Your task to perform on an android device: Go to Google Image 0: 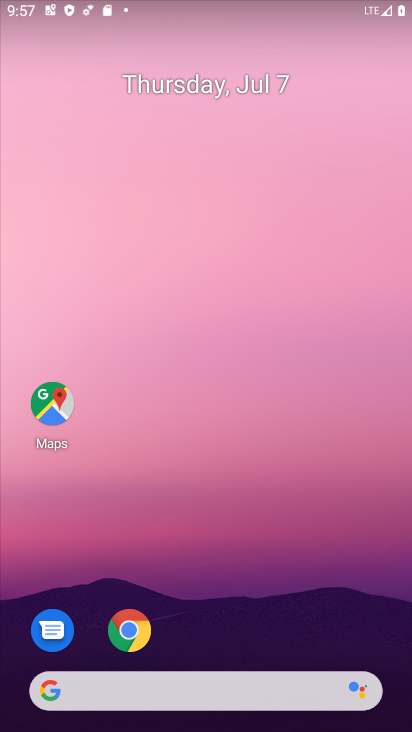
Step 0: drag from (201, 641) to (266, 174)
Your task to perform on an android device: Go to Google Image 1: 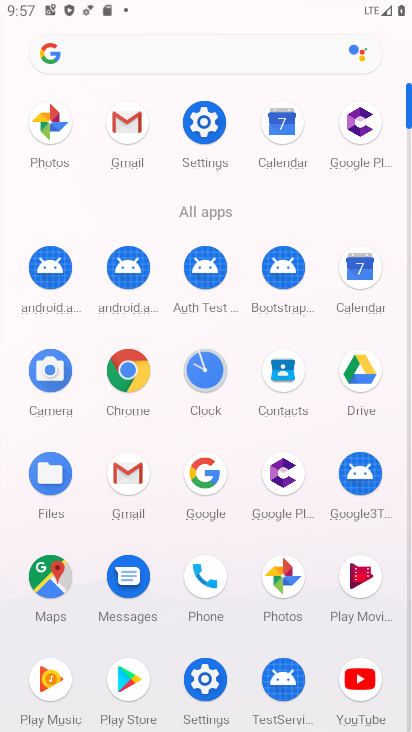
Step 1: click (212, 478)
Your task to perform on an android device: Go to Google Image 2: 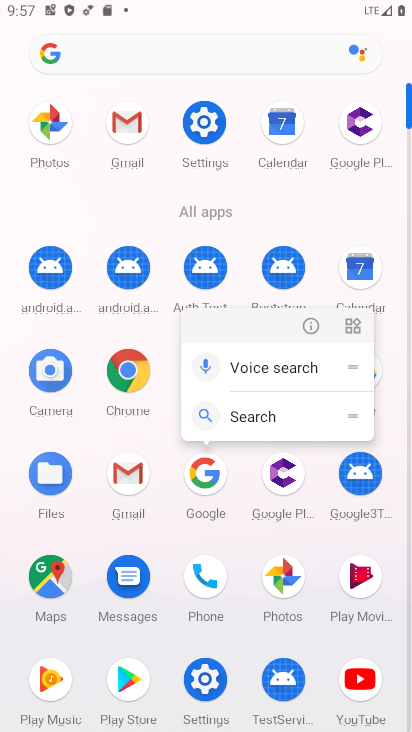
Step 2: click (316, 320)
Your task to perform on an android device: Go to Google Image 3: 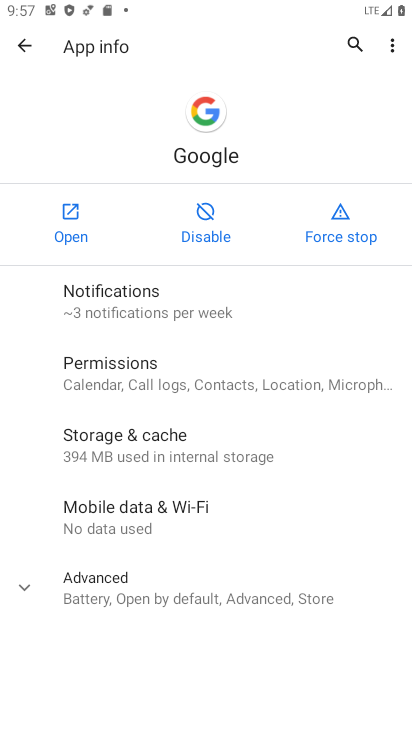
Step 3: click (52, 203)
Your task to perform on an android device: Go to Google Image 4: 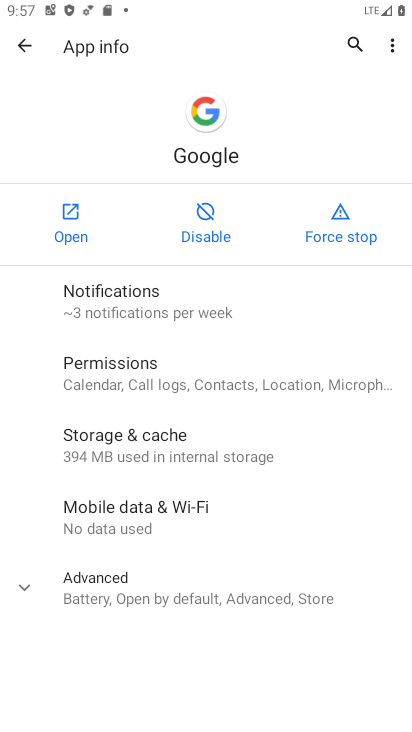
Step 4: click (53, 202)
Your task to perform on an android device: Go to Google Image 5: 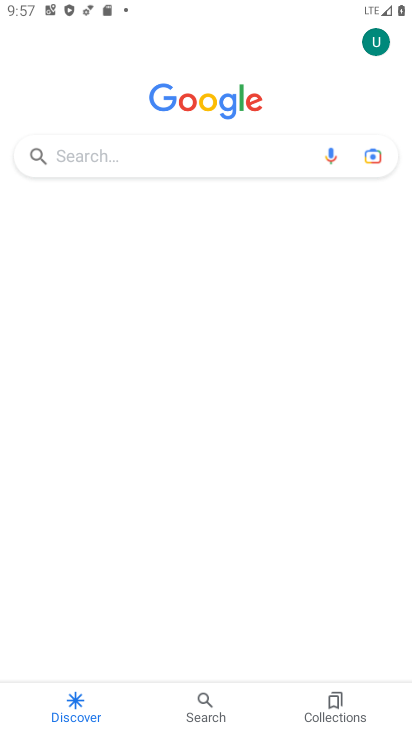
Step 5: task complete